Your task to perform on an android device: Do I have any events tomorrow? Image 0: 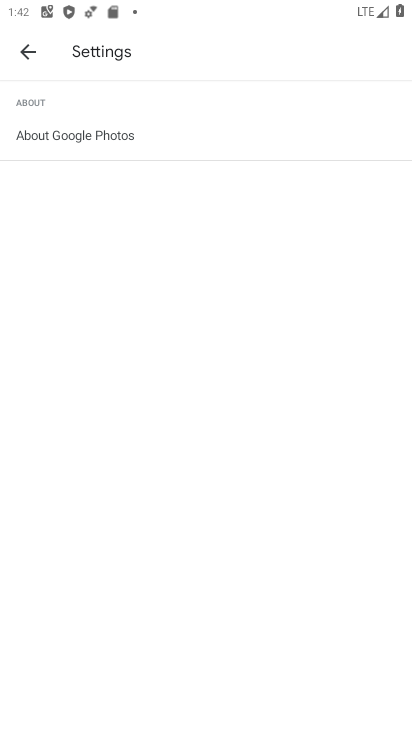
Step 0: press home button
Your task to perform on an android device: Do I have any events tomorrow? Image 1: 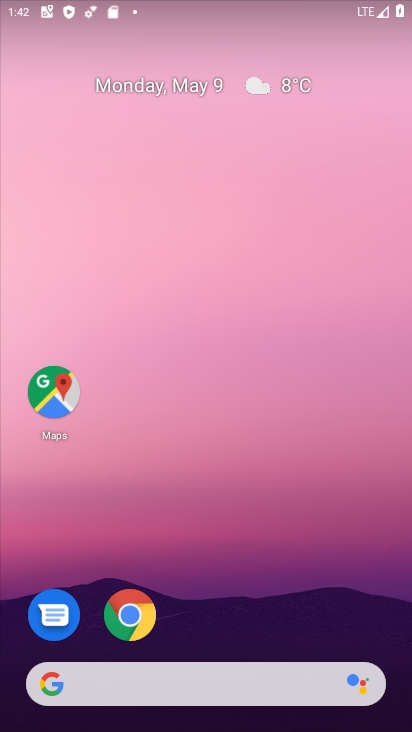
Step 1: drag from (363, 623) to (251, 92)
Your task to perform on an android device: Do I have any events tomorrow? Image 2: 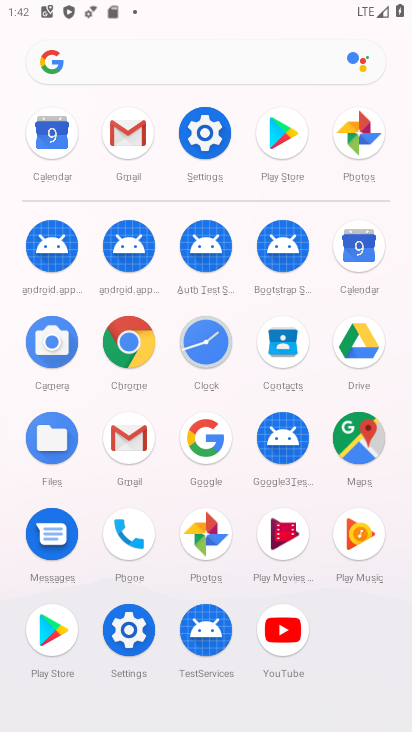
Step 2: click (361, 246)
Your task to perform on an android device: Do I have any events tomorrow? Image 3: 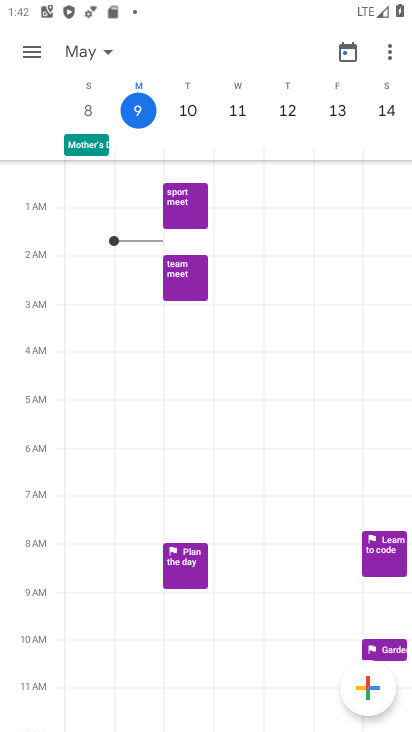
Step 3: click (33, 53)
Your task to perform on an android device: Do I have any events tomorrow? Image 4: 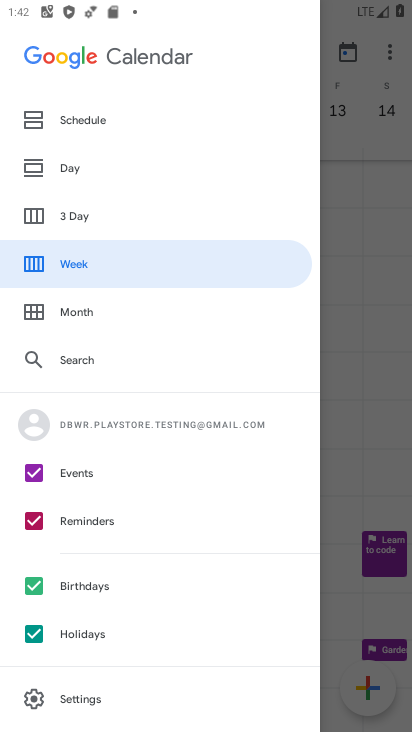
Step 4: click (61, 167)
Your task to perform on an android device: Do I have any events tomorrow? Image 5: 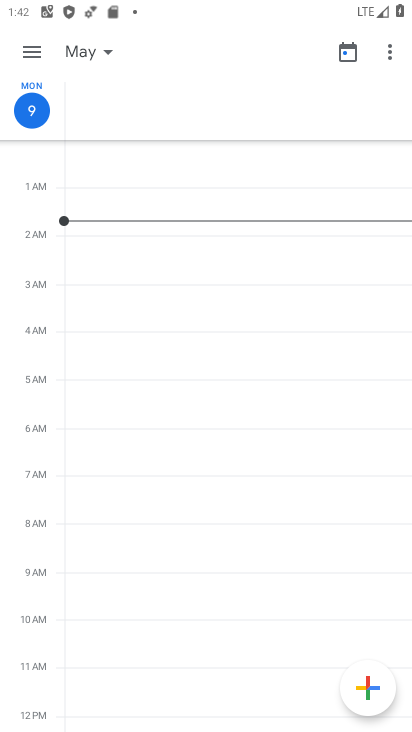
Step 5: click (109, 46)
Your task to perform on an android device: Do I have any events tomorrow? Image 6: 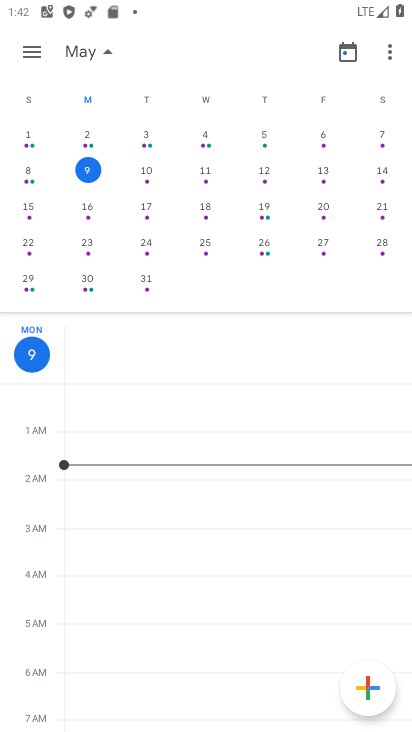
Step 6: click (145, 170)
Your task to perform on an android device: Do I have any events tomorrow? Image 7: 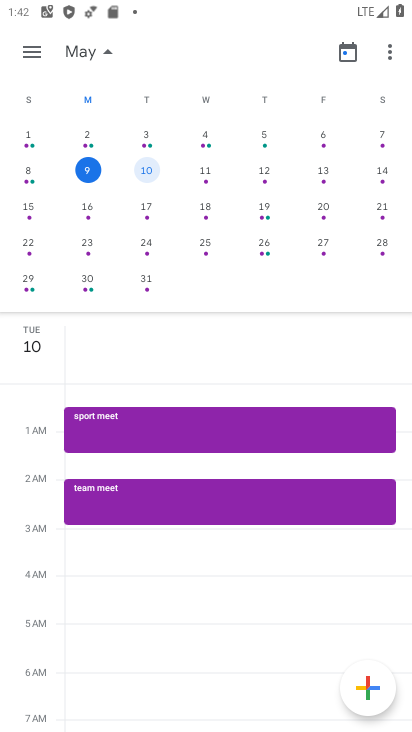
Step 7: task complete